Your task to perform on an android device: Open the calendar app, open the side menu, and click the "Day" option Image 0: 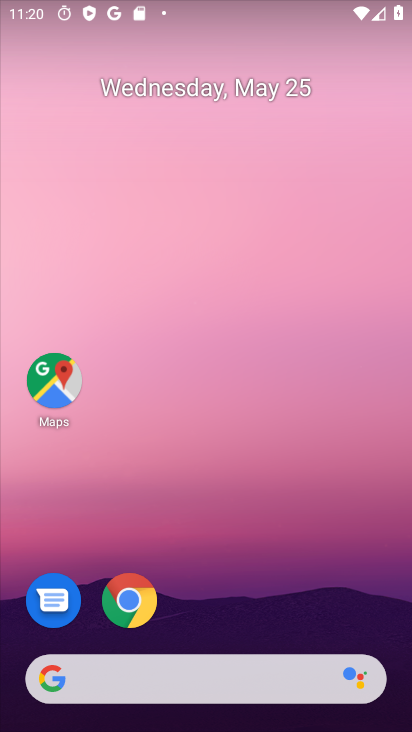
Step 0: drag from (207, 615) to (313, 0)
Your task to perform on an android device: Open the calendar app, open the side menu, and click the "Day" option Image 1: 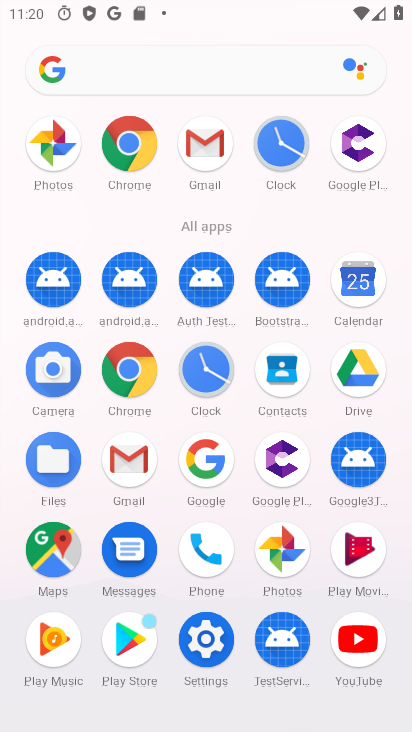
Step 1: click (365, 280)
Your task to perform on an android device: Open the calendar app, open the side menu, and click the "Day" option Image 2: 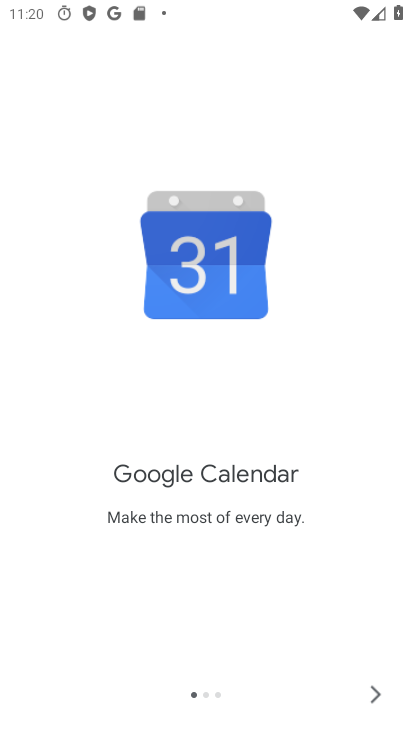
Step 2: click (385, 692)
Your task to perform on an android device: Open the calendar app, open the side menu, and click the "Day" option Image 3: 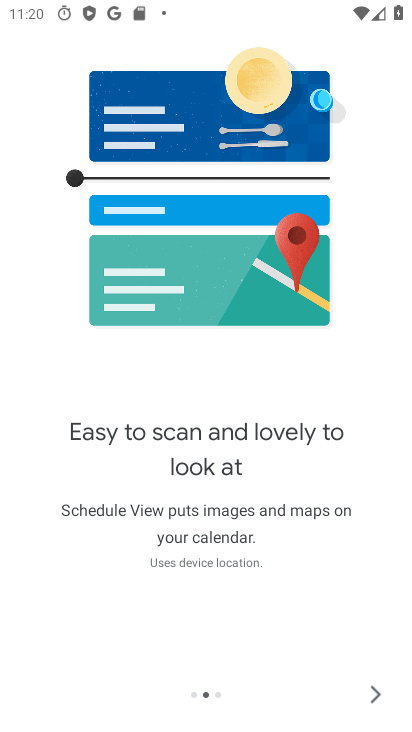
Step 3: click (369, 688)
Your task to perform on an android device: Open the calendar app, open the side menu, and click the "Day" option Image 4: 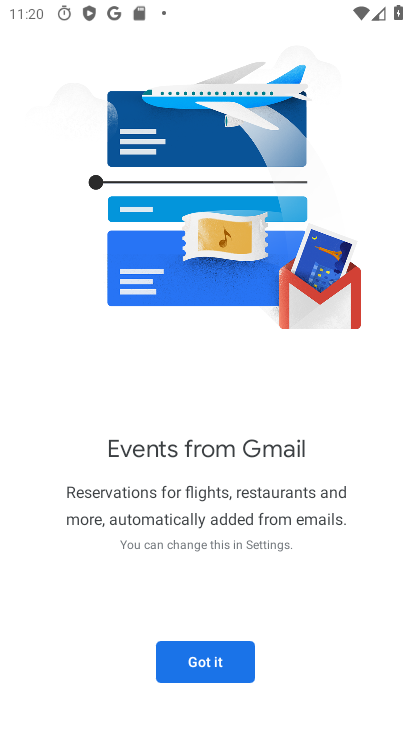
Step 4: click (228, 647)
Your task to perform on an android device: Open the calendar app, open the side menu, and click the "Day" option Image 5: 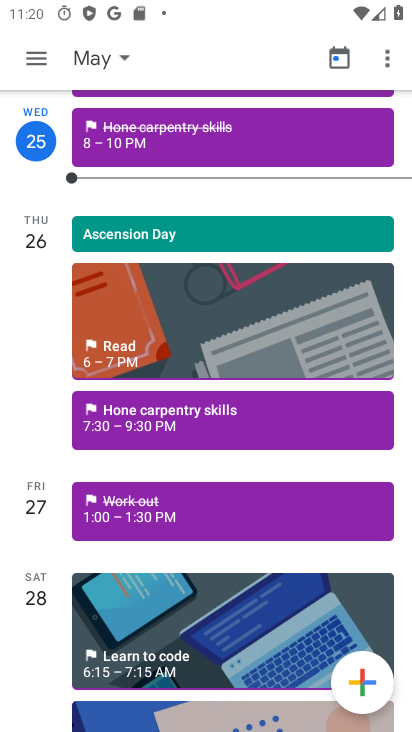
Step 5: click (37, 61)
Your task to perform on an android device: Open the calendar app, open the side menu, and click the "Day" option Image 6: 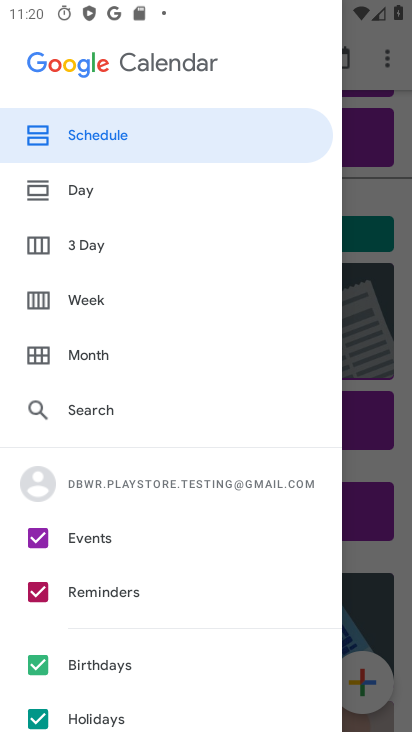
Step 6: click (93, 197)
Your task to perform on an android device: Open the calendar app, open the side menu, and click the "Day" option Image 7: 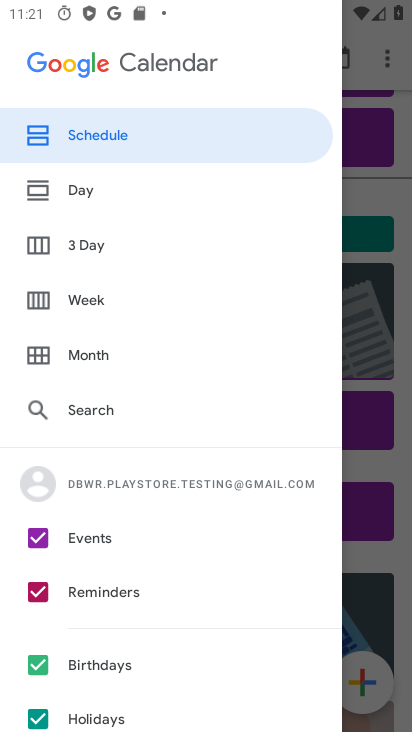
Step 7: click (93, 197)
Your task to perform on an android device: Open the calendar app, open the side menu, and click the "Day" option Image 8: 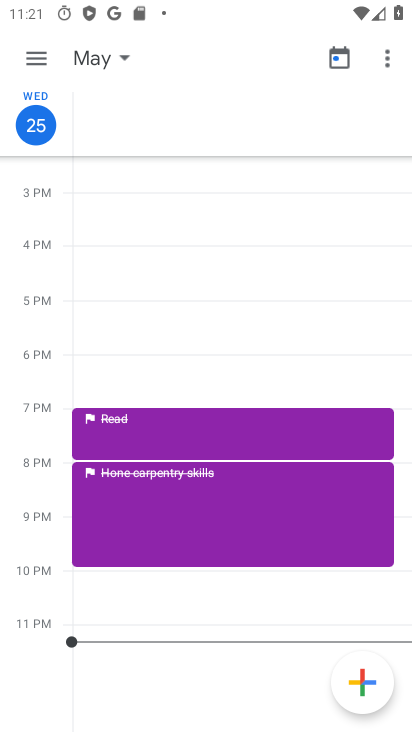
Step 8: task complete